Your task to perform on an android device: Turn on the flashlight Image 0: 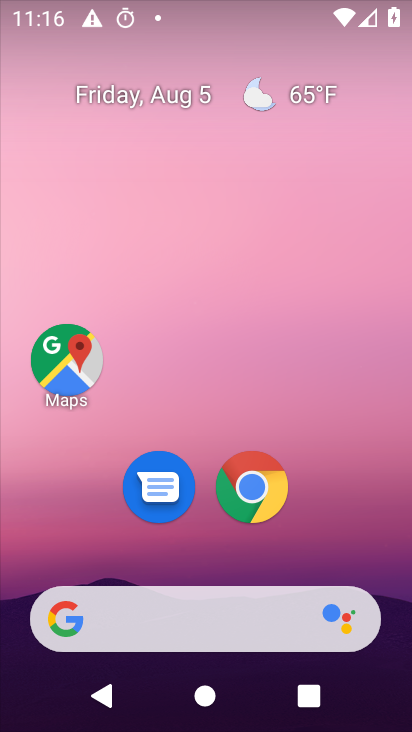
Step 0: drag from (188, 573) to (274, 66)
Your task to perform on an android device: Turn on the flashlight Image 1: 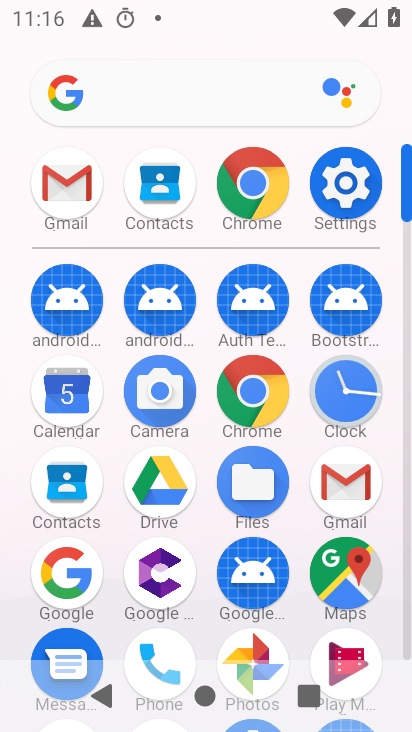
Step 1: click (347, 177)
Your task to perform on an android device: Turn on the flashlight Image 2: 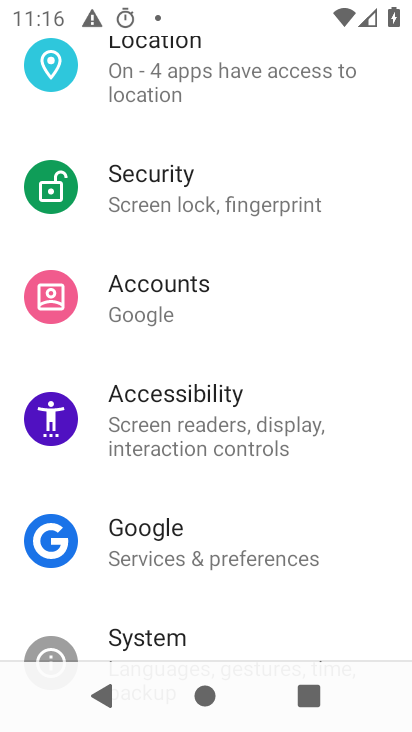
Step 2: drag from (318, 129) to (211, 724)
Your task to perform on an android device: Turn on the flashlight Image 3: 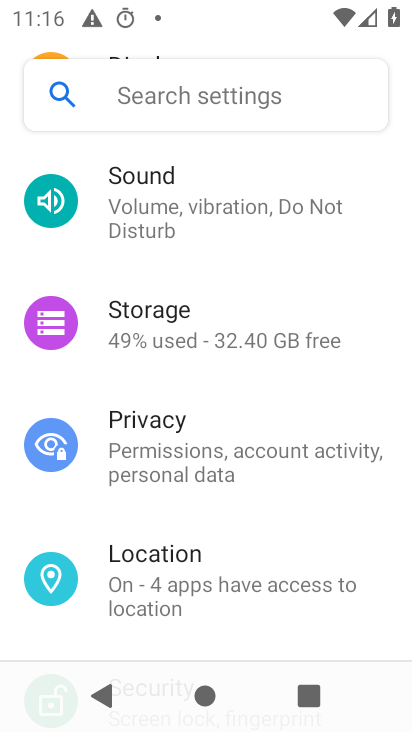
Step 3: click (159, 90)
Your task to perform on an android device: Turn on the flashlight Image 4: 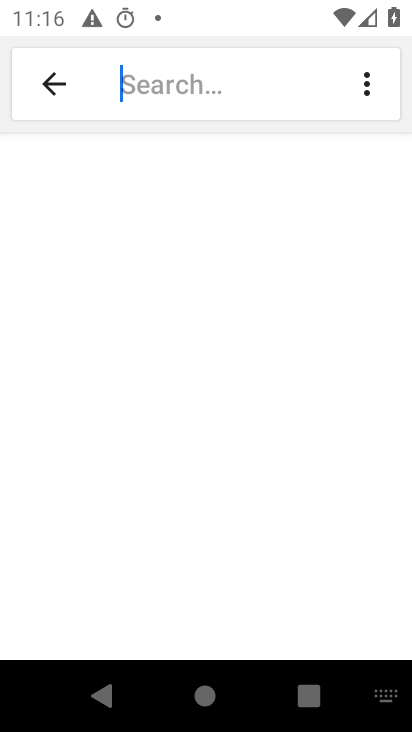
Step 4: type "flashlight"
Your task to perform on an android device: Turn on the flashlight Image 5: 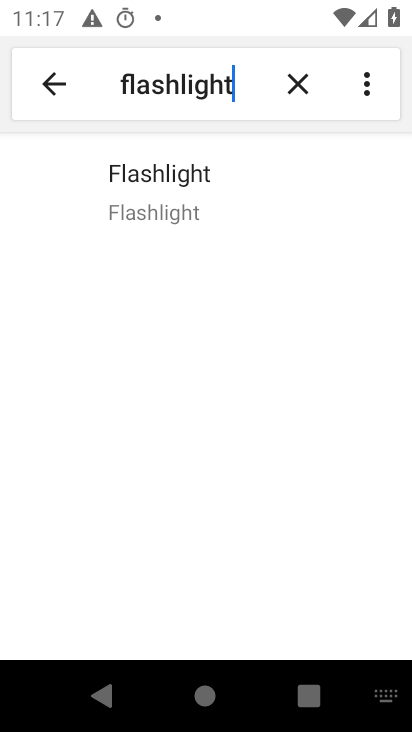
Step 5: click (197, 187)
Your task to perform on an android device: Turn on the flashlight Image 6: 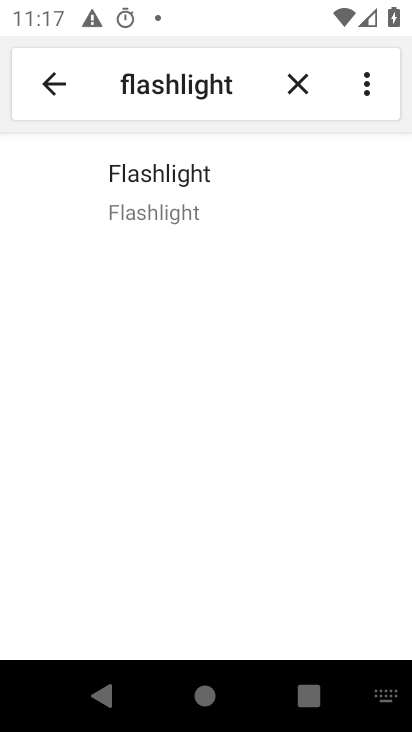
Step 6: task complete